Your task to perform on an android device: Do I have any events this weekend? Image 0: 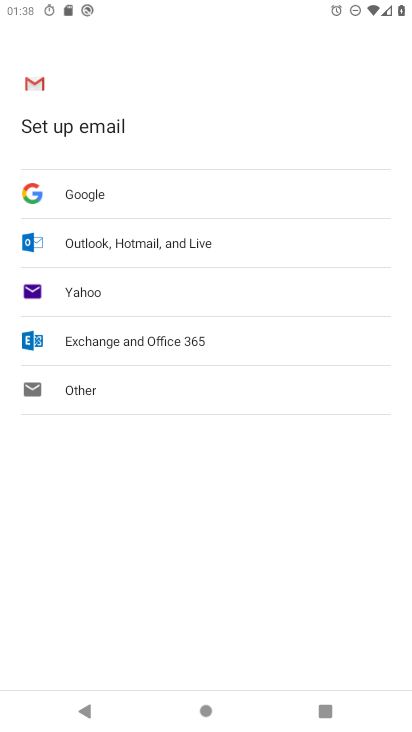
Step 0: press home button
Your task to perform on an android device: Do I have any events this weekend? Image 1: 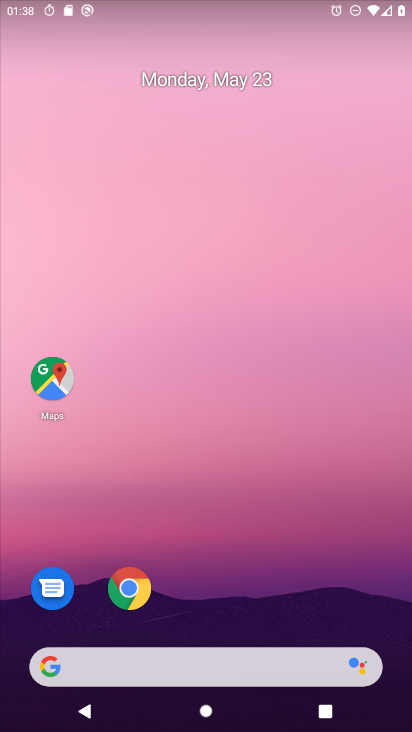
Step 1: drag from (239, 697) to (175, 107)
Your task to perform on an android device: Do I have any events this weekend? Image 2: 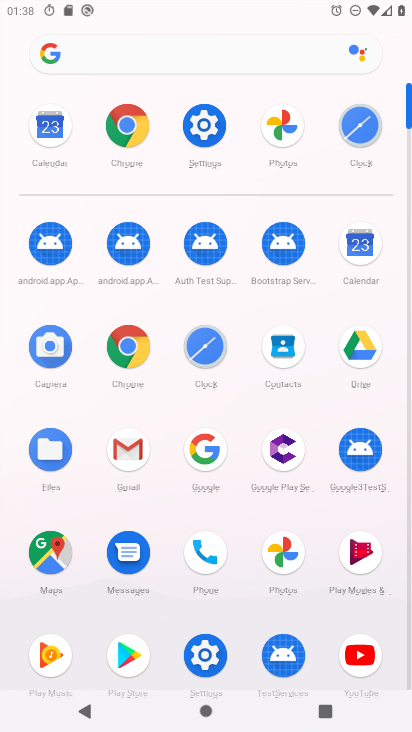
Step 2: click (370, 245)
Your task to perform on an android device: Do I have any events this weekend? Image 3: 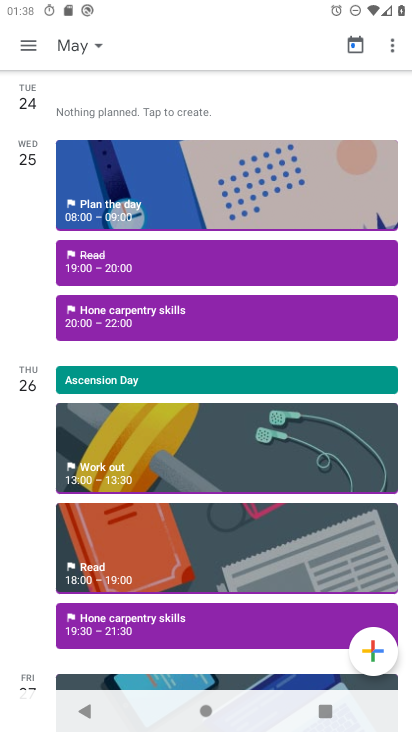
Step 3: task complete